Your task to perform on an android device: Open the web browser Image 0: 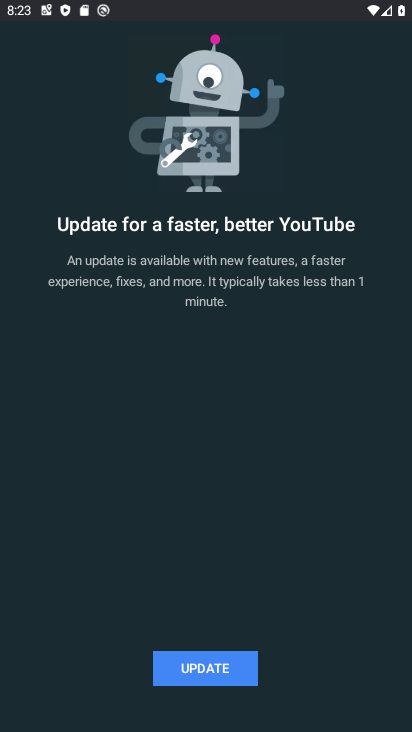
Step 0: press back button
Your task to perform on an android device: Open the web browser Image 1: 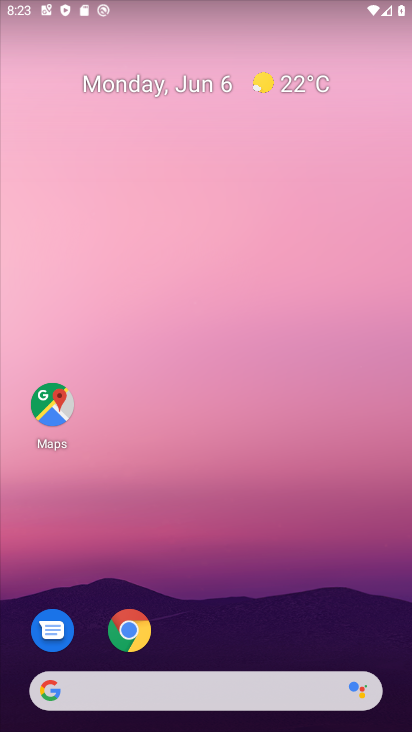
Step 1: click (125, 636)
Your task to perform on an android device: Open the web browser Image 2: 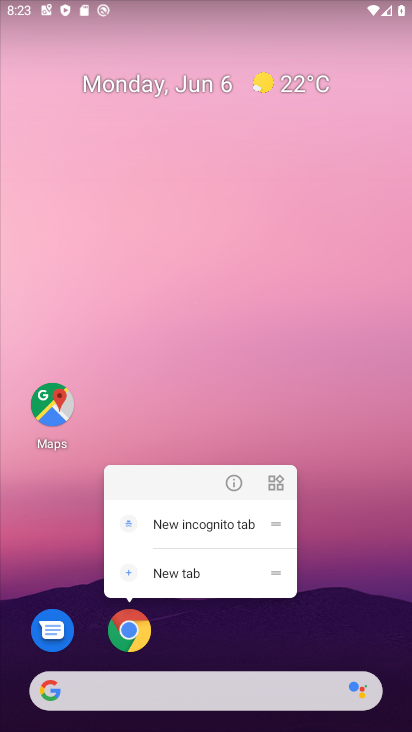
Step 2: click (133, 628)
Your task to perform on an android device: Open the web browser Image 3: 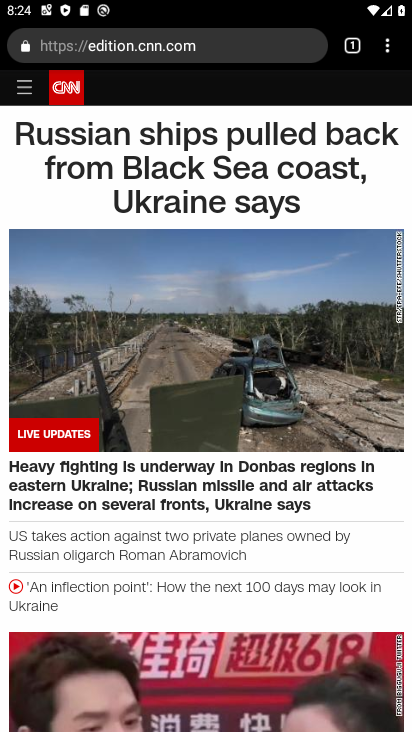
Step 3: task complete